Your task to perform on an android device: toggle notifications settings in the gmail app Image 0: 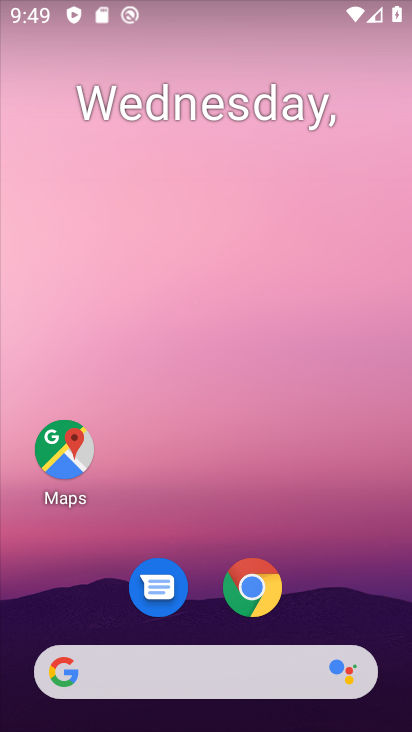
Step 0: drag from (330, 620) to (262, 110)
Your task to perform on an android device: toggle notifications settings in the gmail app Image 1: 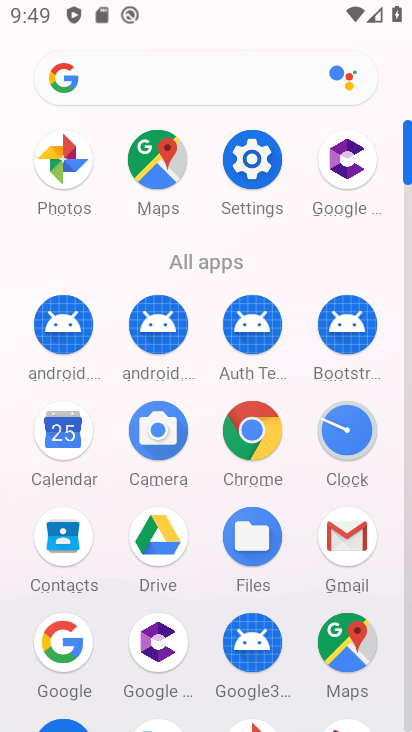
Step 1: click (350, 541)
Your task to perform on an android device: toggle notifications settings in the gmail app Image 2: 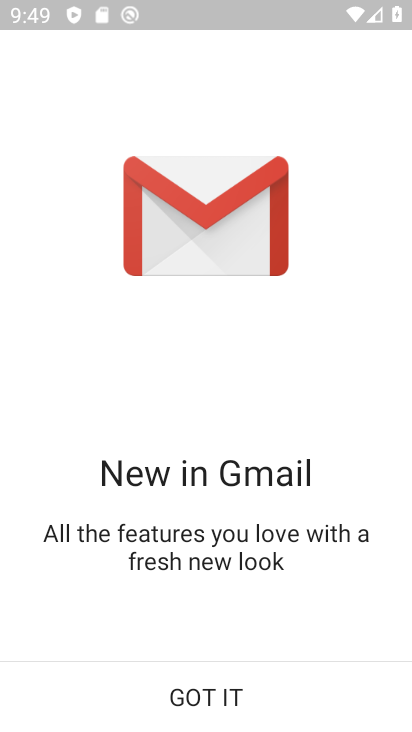
Step 2: click (128, 669)
Your task to perform on an android device: toggle notifications settings in the gmail app Image 3: 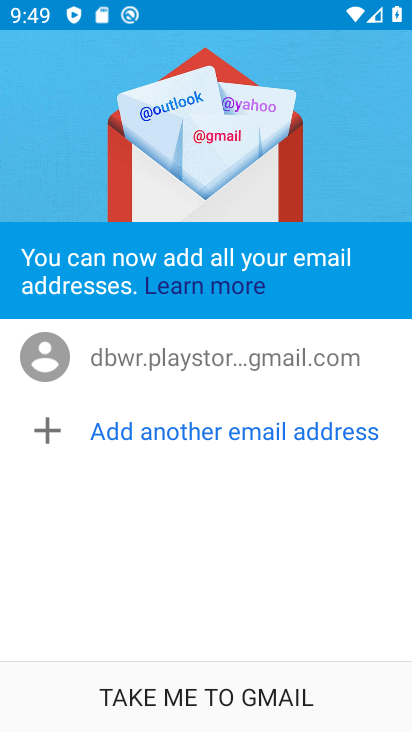
Step 3: click (142, 685)
Your task to perform on an android device: toggle notifications settings in the gmail app Image 4: 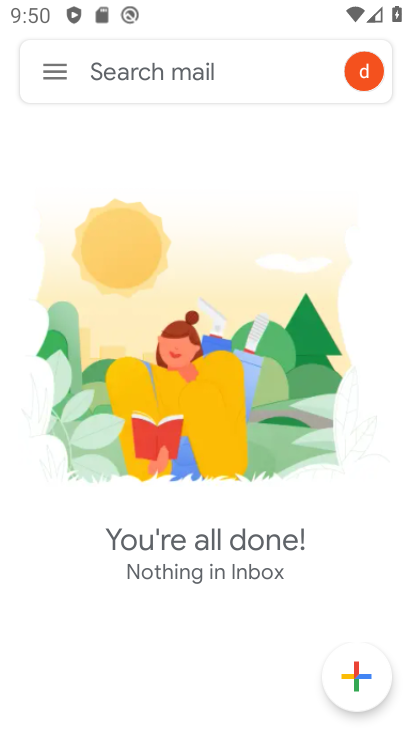
Step 4: click (45, 81)
Your task to perform on an android device: toggle notifications settings in the gmail app Image 5: 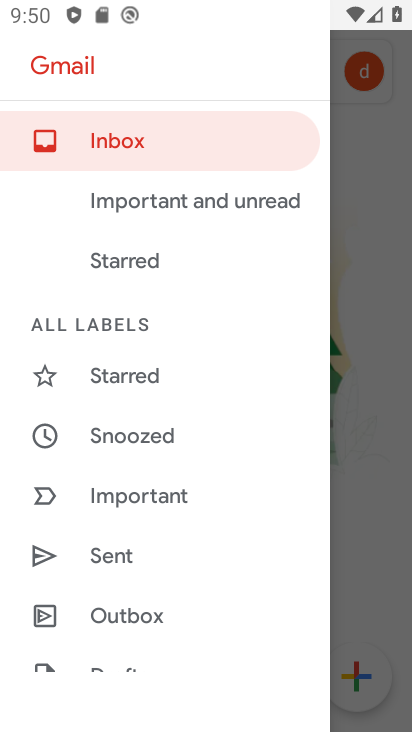
Step 5: drag from (209, 542) to (228, 258)
Your task to perform on an android device: toggle notifications settings in the gmail app Image 6: 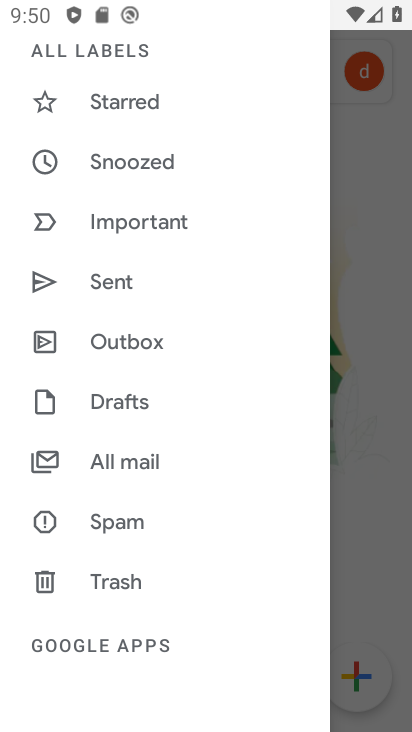
Step 6: drag from (207, 568) to (221, 265)
Your task to perform on an android device: toggle notifications settings in the gmail app Image 7: 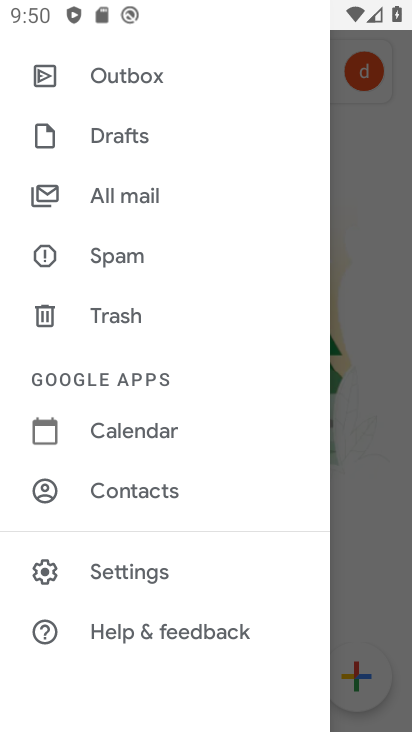
Step 7: click (115, 570)
Your task to perform on an android device: toggle notifications settings in the gmail app Image 8: 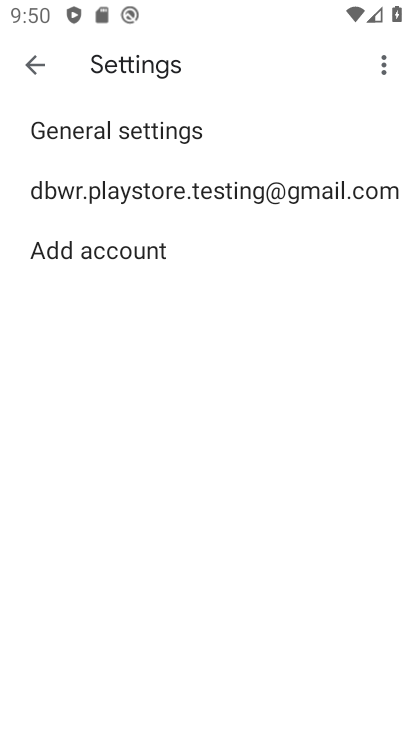
Step 8: click (147, 194)
Your task to perform on an android device: toggle notifications settings in the gmail app Image 9: 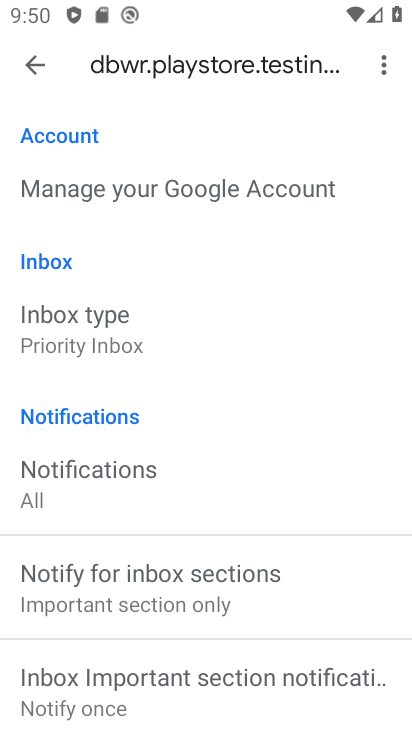
Step 9: click (77, 422)
Your task to perform on an android device: toggle notifications settings in the gmail app Image 10: 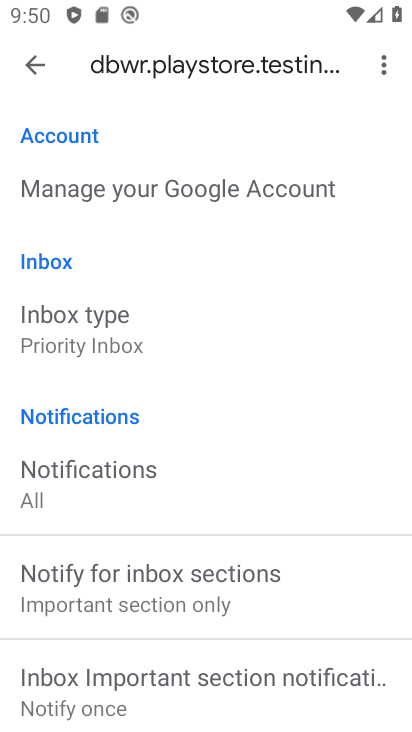
Step 10: click (82, 481)
Your task to perform on an android device: toggle notifications settings in the gmail app Image 11: 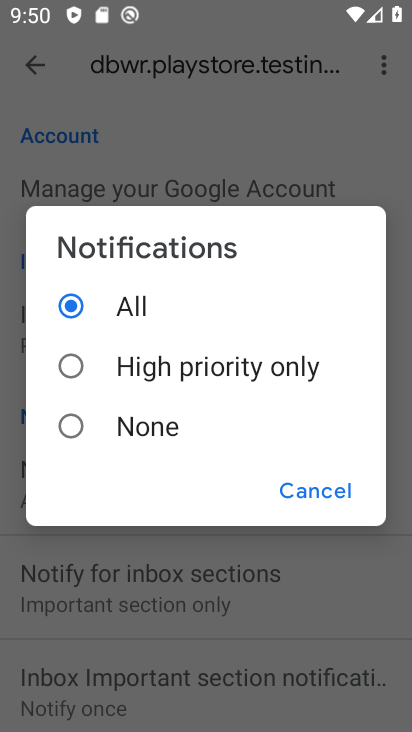
Step 11: click (80, 375)
Your task to perform on an android device: toggle notifications settings in the gmail app Image 12: 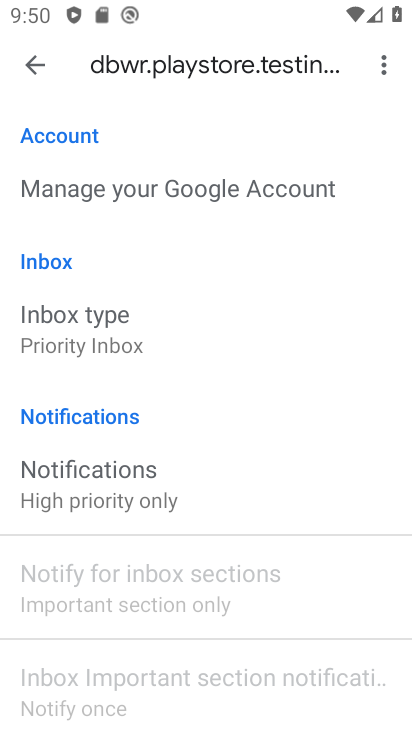
Step 12: task complete